Your task to perform on an android device: What's the weather going to be this weekend? Image 0: 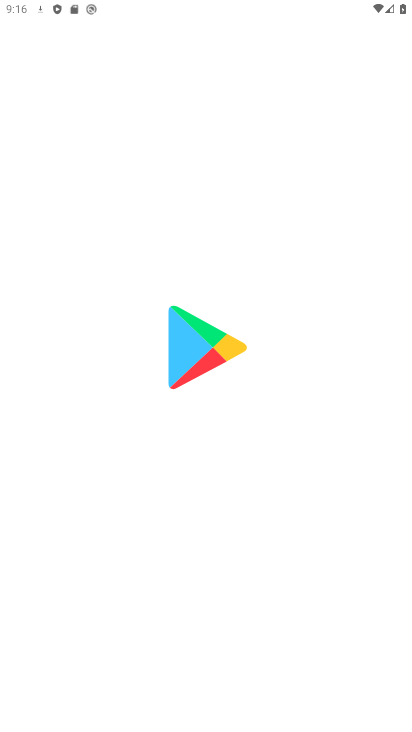
Step 0: drag from (247, 600) to (195, 267)
Your task to perform on an android device: What's the weather going to be this weekend? Image 1: 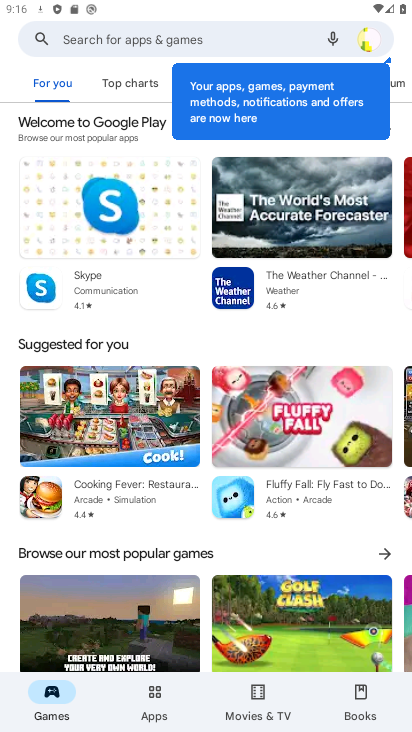
Step 1: press home button
Your task to perform on an android device: What's the weather going to be this weekend? Image 2: 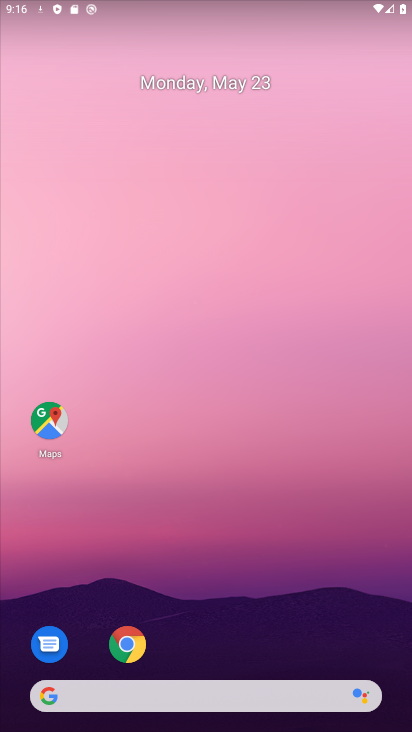
Step 2: drag from (218, 708) to (181, 315)
Your task to perform on an android device: What's the weather going to be this weekend? Image 3: 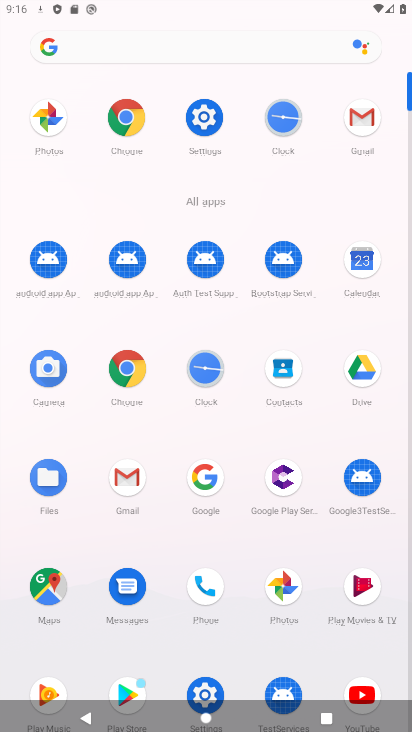
Step 3: click (354, 265)
Your task to perform on an android device: What's the weather going to be this weekend? Image 4: 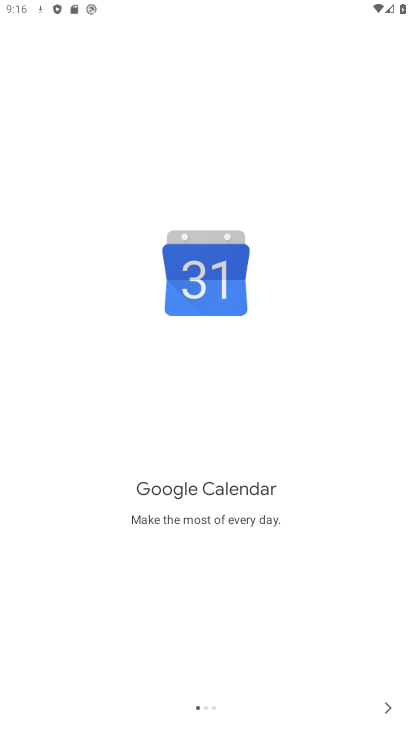
Step 4: click (390, 698)
Your task to perform on an android device: What's the weather going to be this weekend? Image 5: 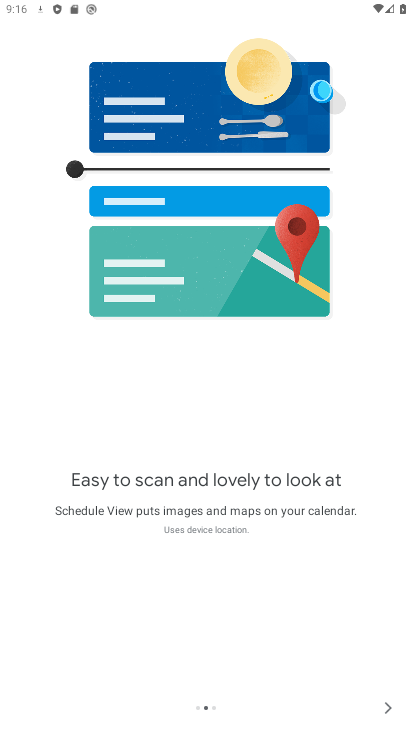
Step 5: click (380, 704)
Your task to perform on an android device: What's the weather going to be this weekend? Image 6: 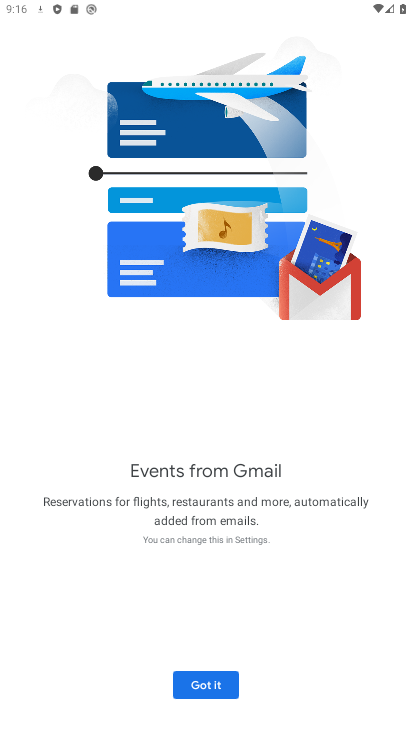
Step 6: click (226, 668)
Your task to perform on an android device: What's the weather going to be this weekend? Image 7: 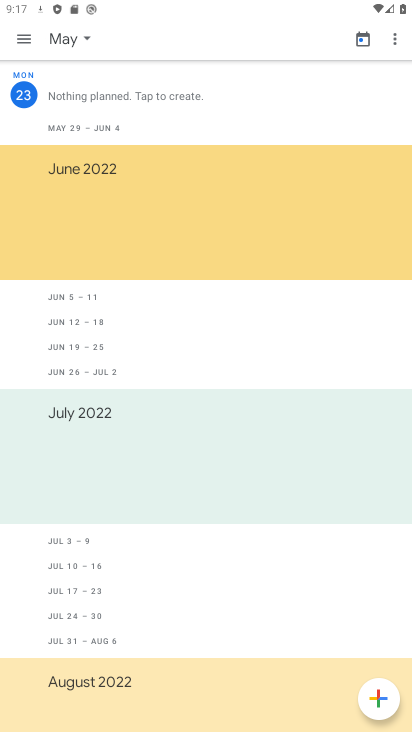
Step 7: task complete